Your task to perform on an android device: turn on showing notifications on the lock screen Image 0: 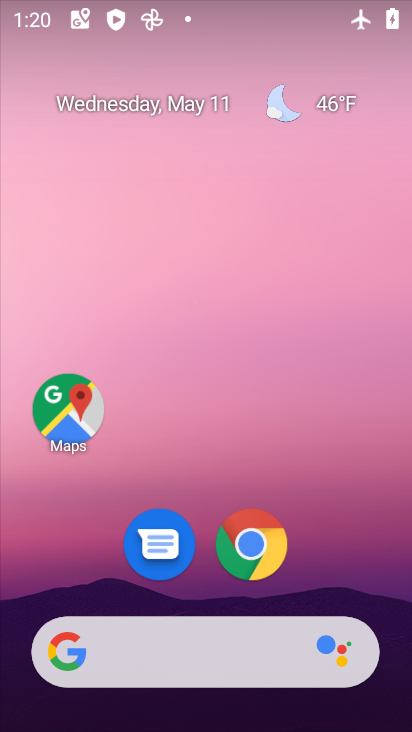
Step 0: drag from (400, 647) to (280, 136)
Your task to perform on an android device: turn on showing notifications on the lock screen Image 1: 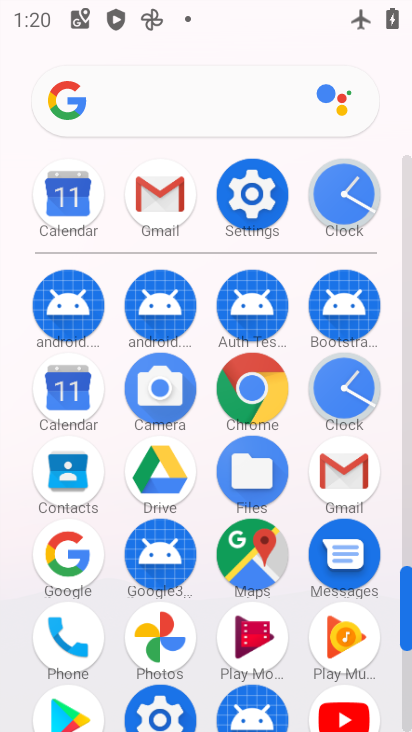
Step 1: click (407, 706)
Your task to perform on an android device: turn on showing notifications on the lock screen Image 2: 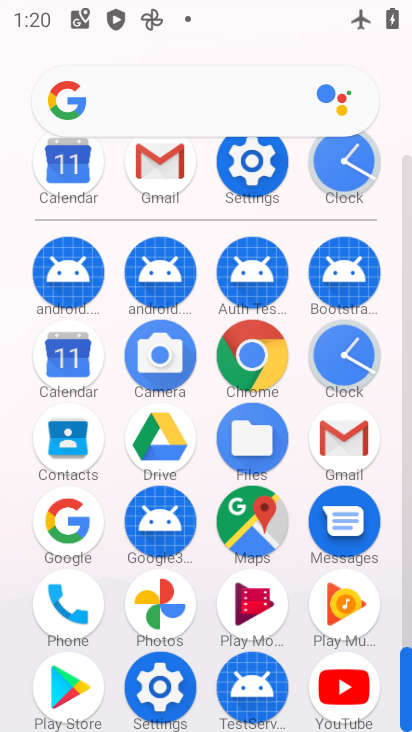
Step 2: click (159, 686)
Your task to perform on an android device: turn on showing notifications on the lock screen Image 3: 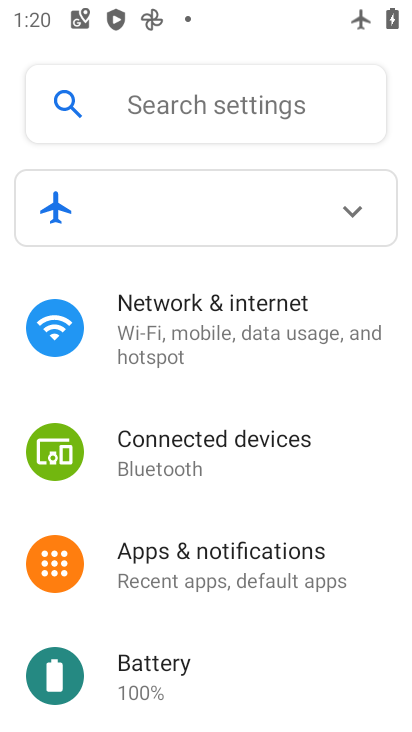
Step 3: click (196, 567)
Your task to perform on an android device: turn on showing notifications on the lock screen Image 4: 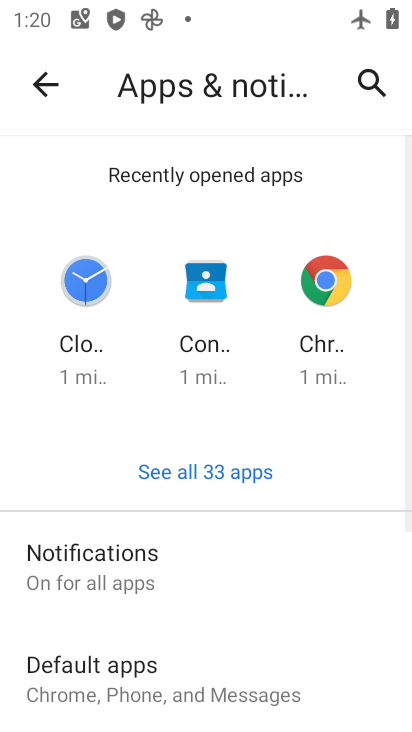
Step 4: drag from (329, 661) to (262, 180)
Your task to perform on an android device: turn on showing notifications on the lock screen Image 5: 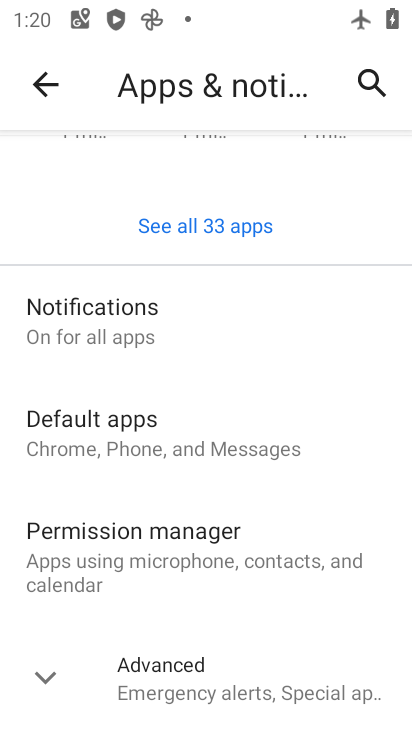
Step 5: click (76, 306)
Your task to perform on an android device: turn on showing notifications on the lock screen Image 6: 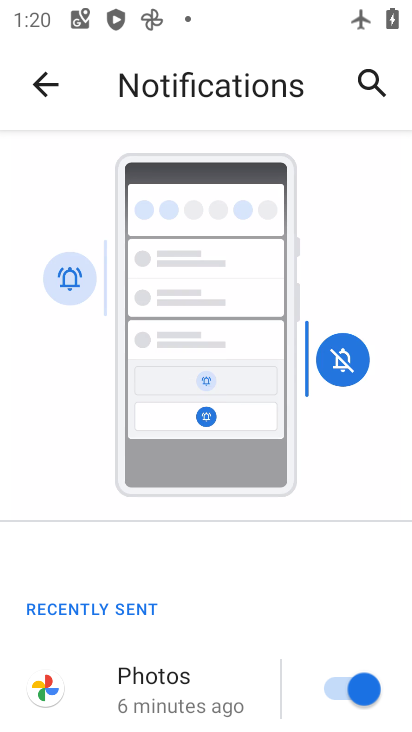
Step 6: drag from (275, 696) to (209, 115)
Your task to perform on an android device: turn on showing notifications on the lock screen Image 7: 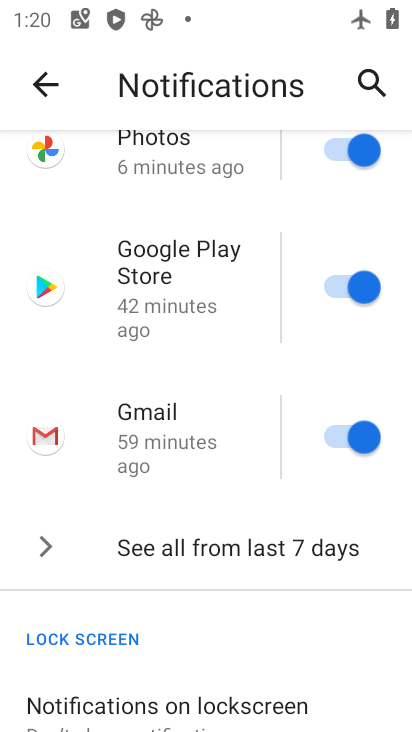
Step 7: drag from (247, 642) to (276, 141)
Your task to perform on an android device: turn on showing notifications on the lock screen Image 8: 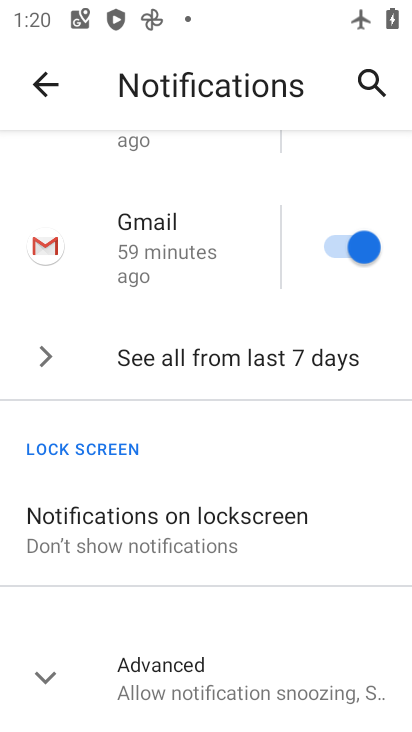
Step 8: click (88, 529)
Your task to perform on an android device: turn on showing notifications on the lock screen Image 9: 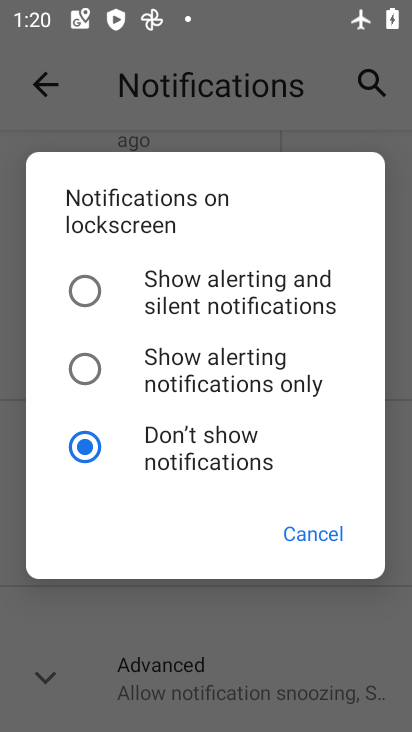
Step 9: click (83, 284)
Your task to perform on an android device: turn on showing notifications on the lock screen Image 10: 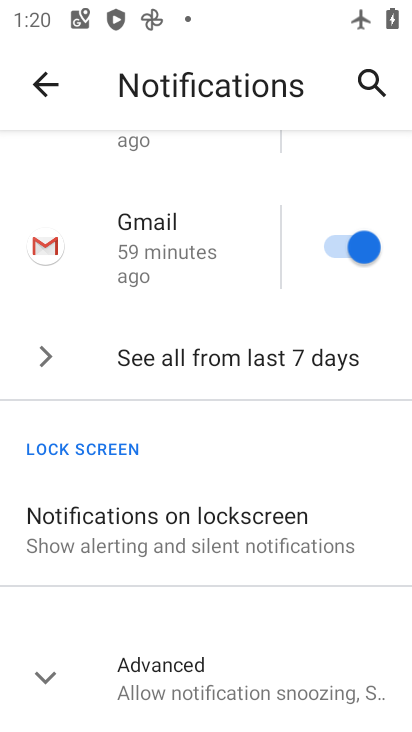
Step 10: task complete